Your task to perform on an android device: toggle sleep mode Image 0: 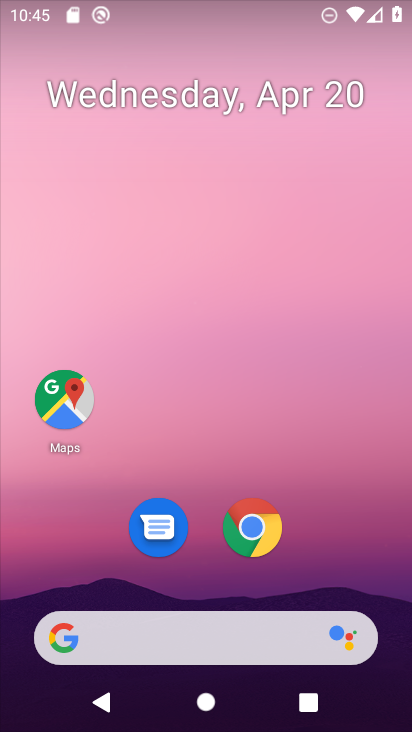
Step 0: drag from (187, 475) to (376, 381)
Your task to perform on an android device: toggle sleep mode Image 1: 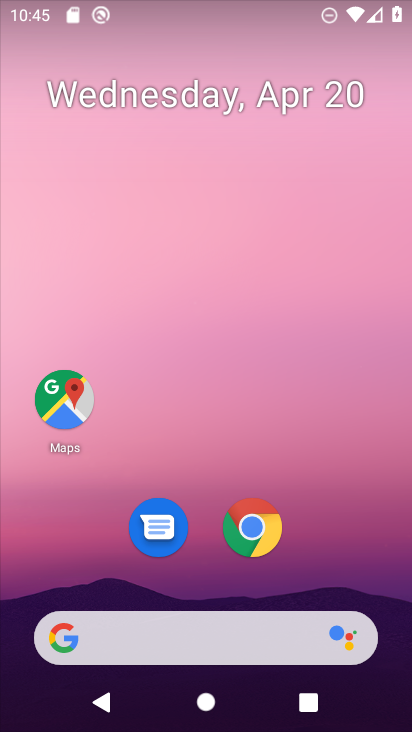
Step 1: drag from (222, 511) to (359, 4)
Your task to perform on an android device: toggle sleep mode Image 2: 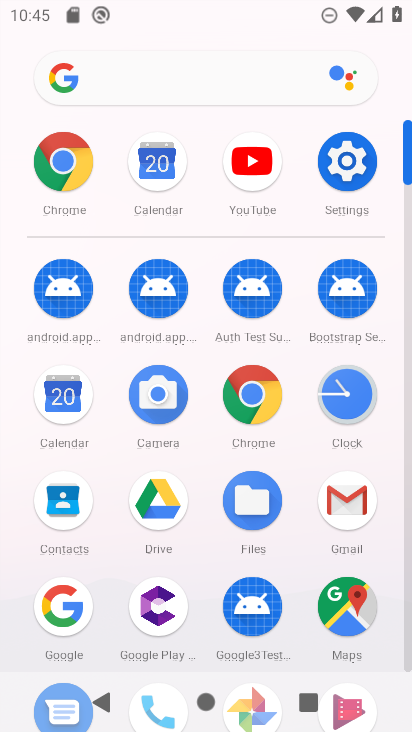
Step 2: click (340, 221)
Your task to perform on an android device: toggle sleep mode Image 3: 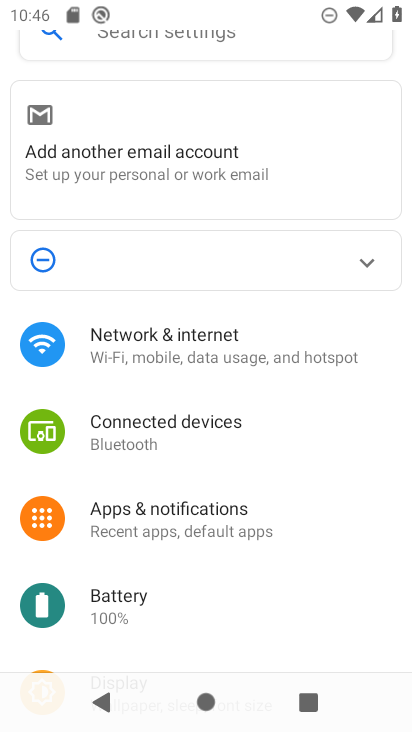
Step 3: drag from (205, 148) to (207, 539)
Your task to perform on an android device: toggle sleep mode Image 4: 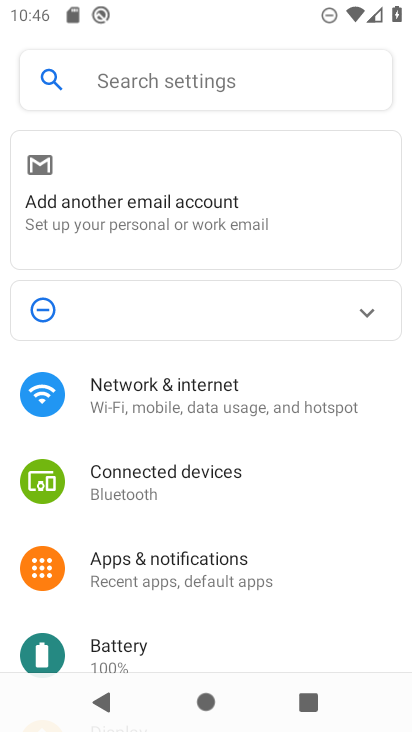
Step 4: click (222, 65)
Your task to perform on an android device: toggle sleep mode Image 5: 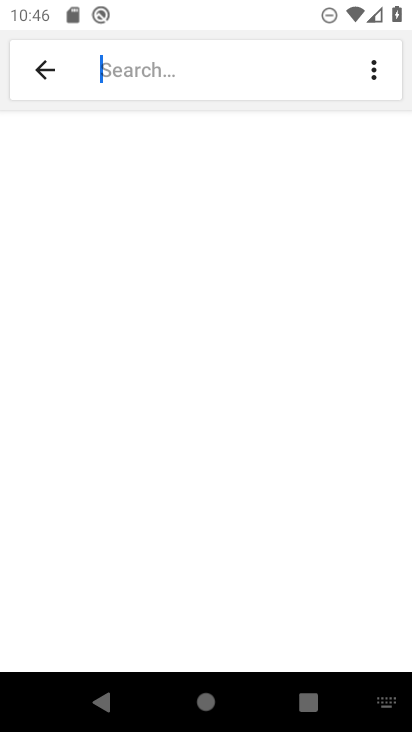
Step 5: type "sleep "
Your task to perform on an android device: toggle sleep mode Image 6: 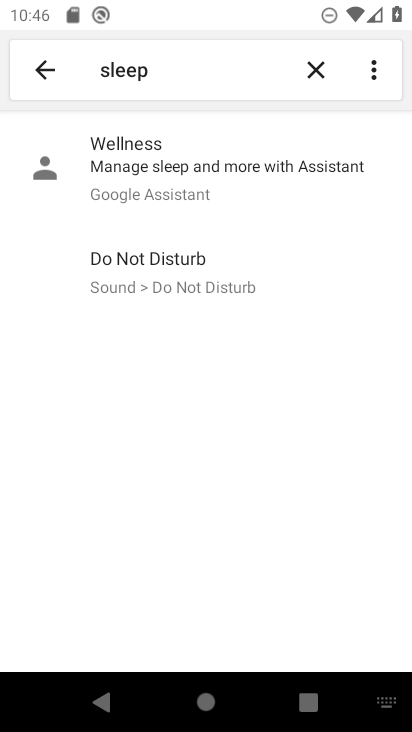
Step 6: task complete